Your task to perform on an android device: set an alarm Image 0: 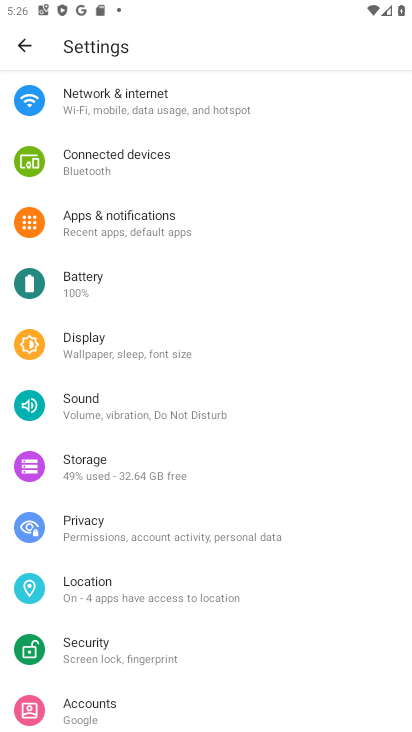
Step 0: press home button
Your task to perform on an android device: set an alarm Image 1: 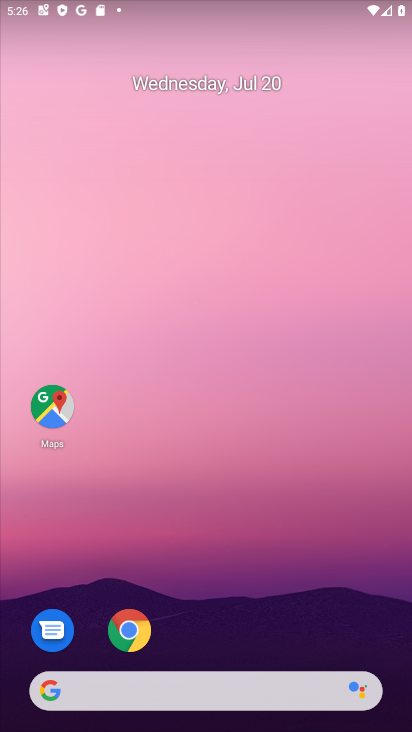
Step 1: drag from (227, 685) to (173, 150)
Your task to perform on an android device: set an alarm Image 2: 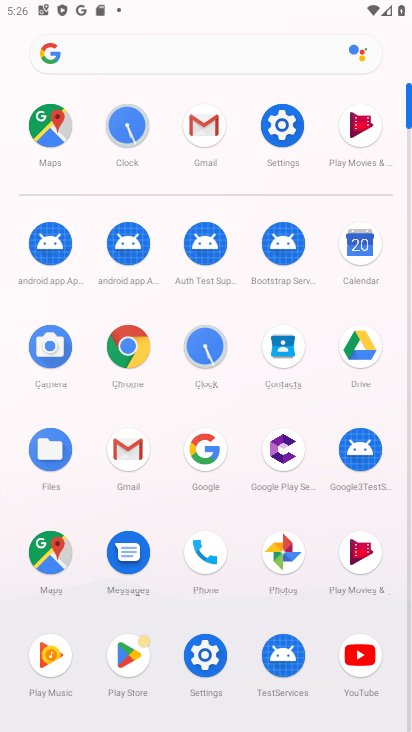
Step 2: click (126, 124)
Your task to perform on an android device: set an alarm Image 3: 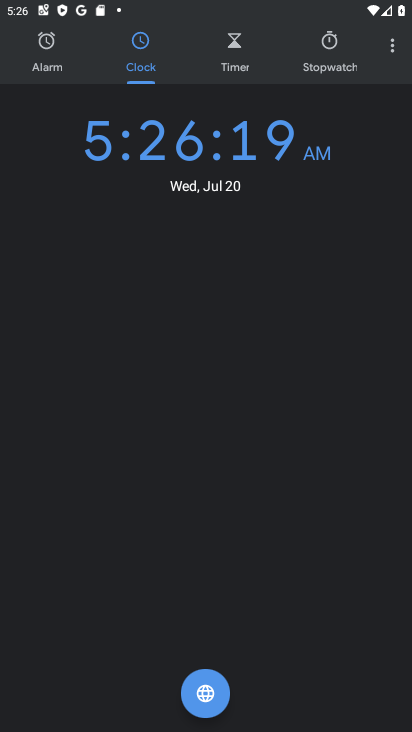
Step 3: click (49, 43)
Your task to perform on an android device: set an alarm Image 4: 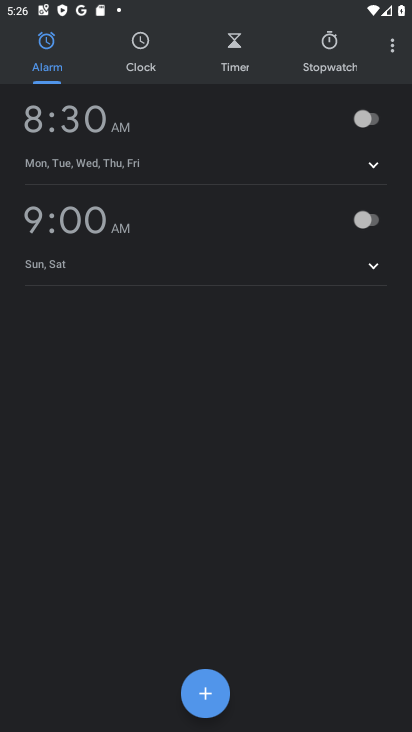
Step 4: click (207, 695)
Your task to perform on an android device: set an alarm Image 5: 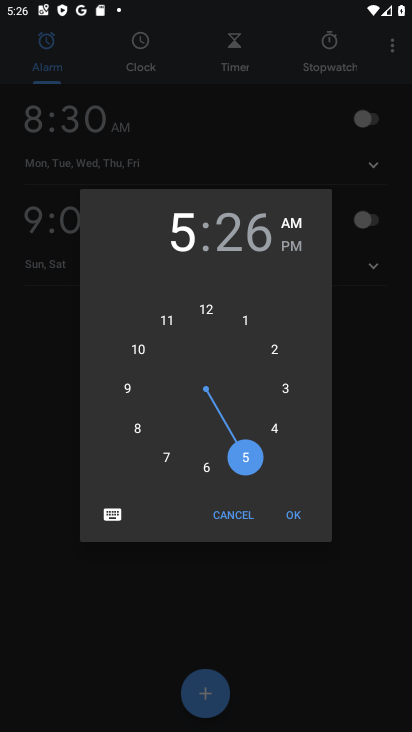
Step 5: click (206, 472)
Your task to perform on an android device: set an alarm Image 6: 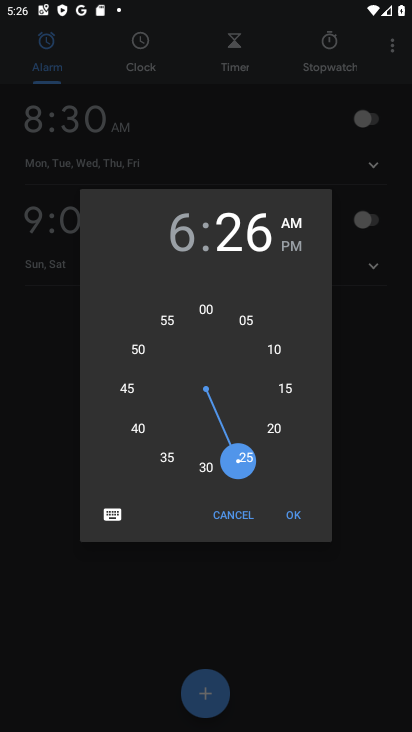
Step 6: click (207, 315)
Your task to perform on an android device: set an alarm Image 7: 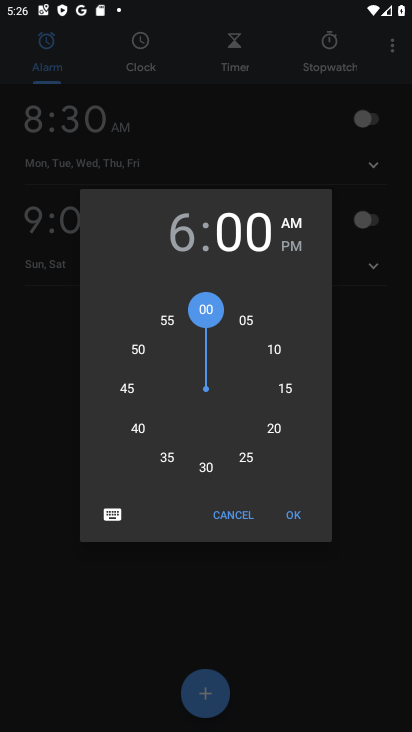
Step 7: click (298, 247)
Your task to perform on an android device: set an alarm Image 8: 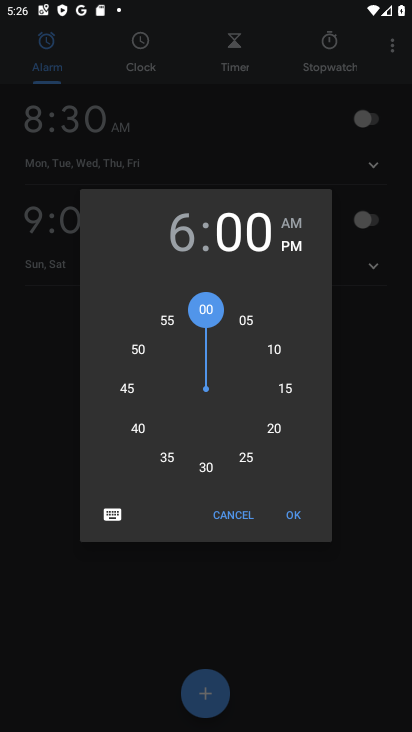
Step 8: click (296, 517)
Your task to perform on an android device: set an alarm Image 9: 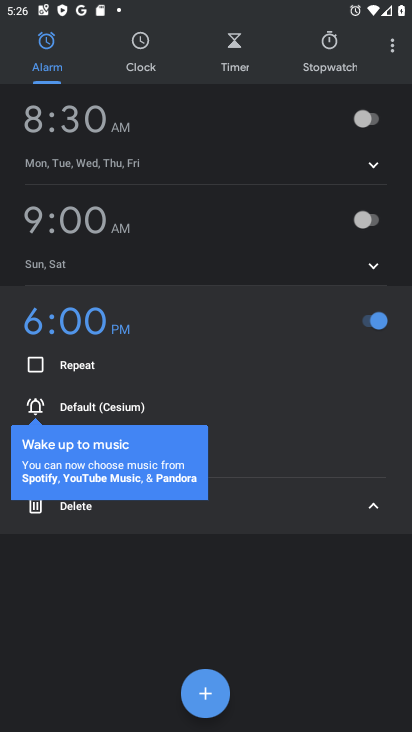
Step 9: click (370, 512)
Your task to perform on an android device: set an alarm Image 10: 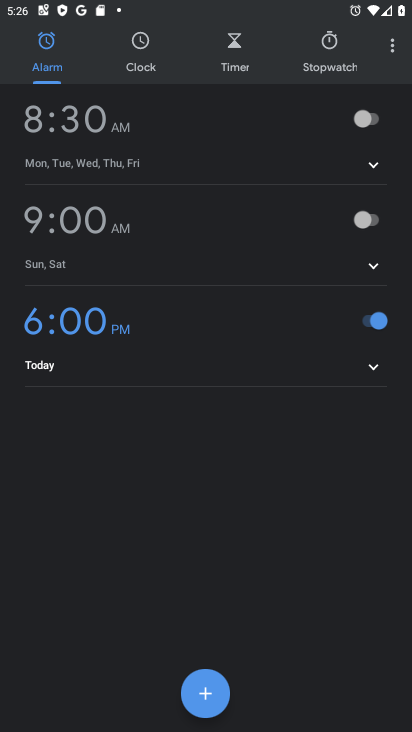
Step 10: task complete